Your task to perform on an android device: change notification settings in the gmail app Image 0: 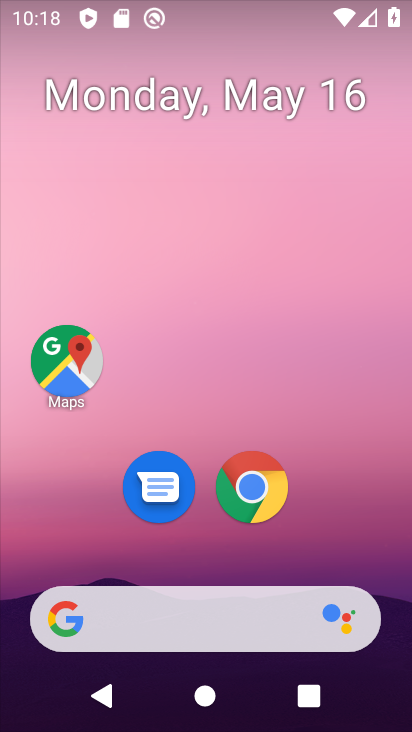
Step 0: drag from (13, 588) to (222, 170)
Your task to perform on an android device: change notification settings in the gmail app Image 1: 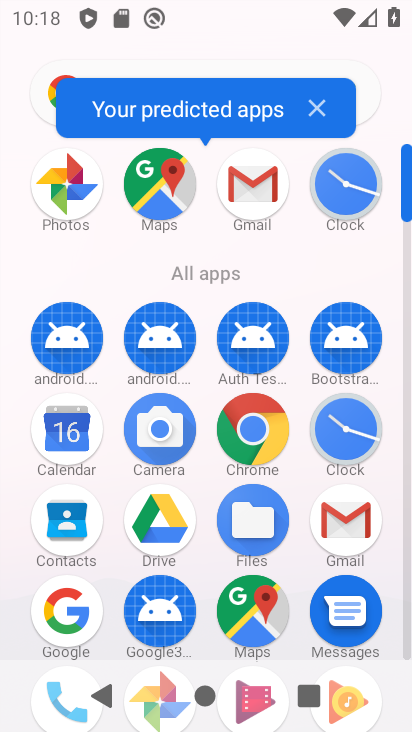
Step 1: click (248, 182)
Your task to perform on an android device: change notification settings in the gmail app Image 2: 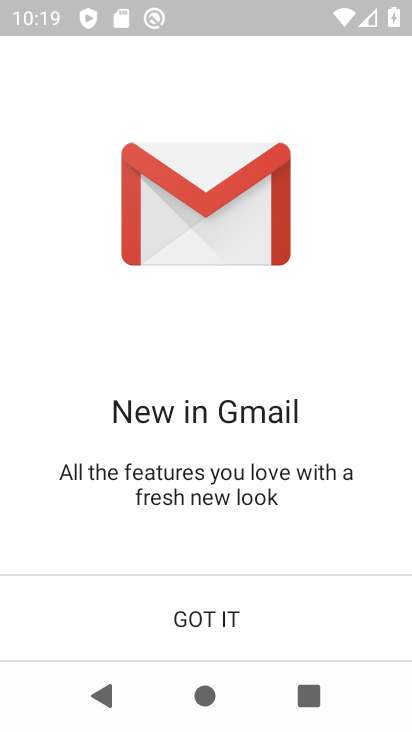
Step 2: click (223, 618)
Your task to perform on an android device: change notification settings in the gmail app Image 3: 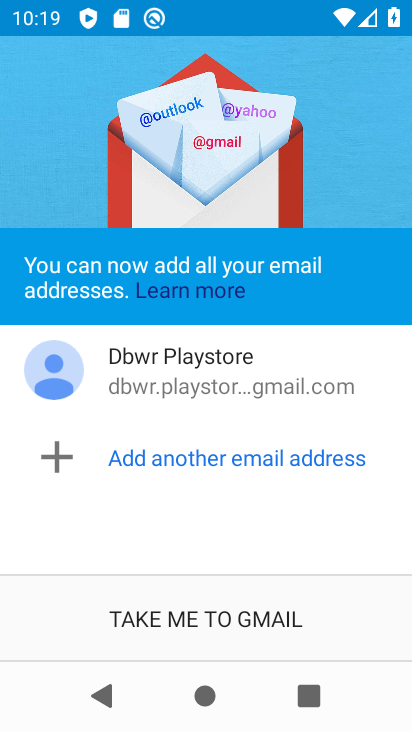
Step 3: click (118, 642)
Your task to perform on an android device: change notification settings in the gmail app Image 4: 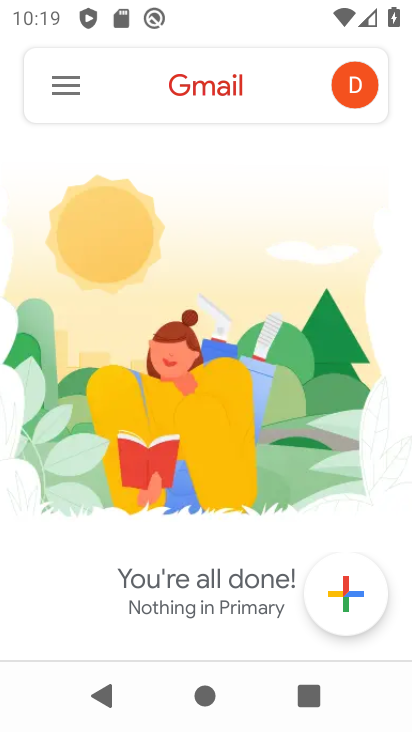
Step 4: click (68, 93)
Your task to perform on an android device: change notification settings in the gmail app Image 5: 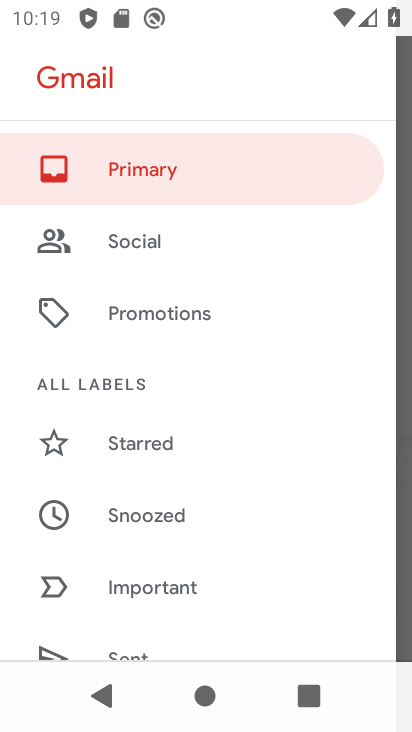
Step 5: drag from (128, 595) to (253, 62)
Your task to perform on an android device: change notification settings in the gmail app Image 6: 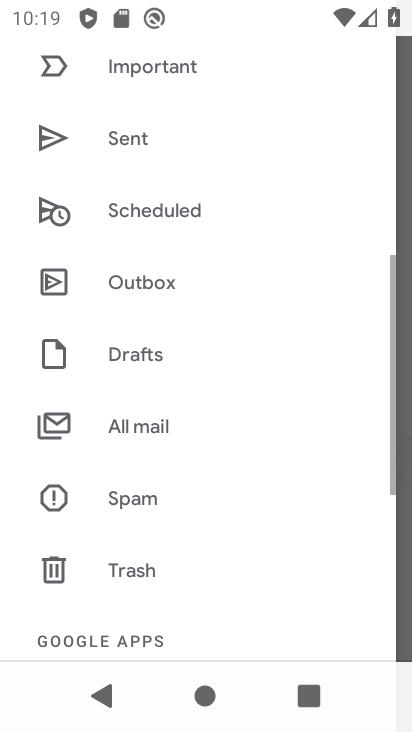
Step 6: drag from (81, 630) to (288, 174)
Your task to perform on an android device: change notification settings in the gmail app Image 7: 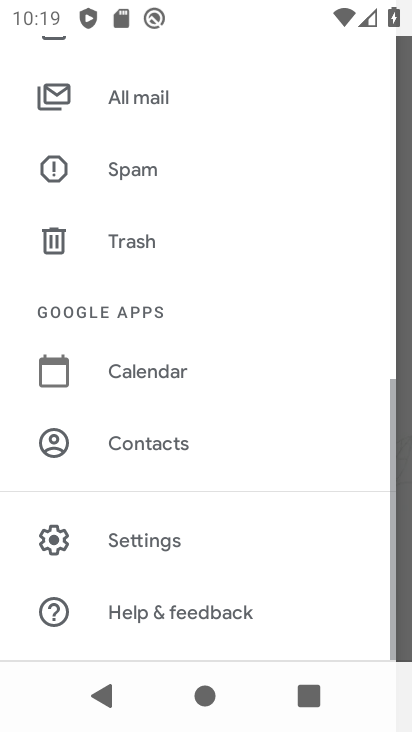
Step 7: click (155, 545)
Your task to perform on an android device: change notification settings in the gmail app Image 8: 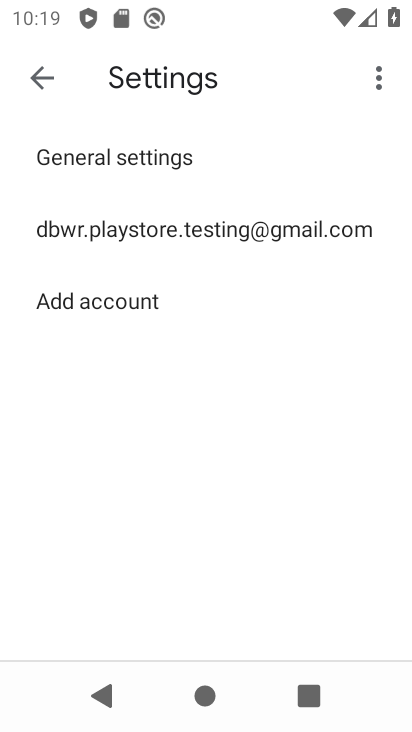
Step 8: click (171, 231)
Your task to perform on an android device: change notification settings in the gmail app Image 9: 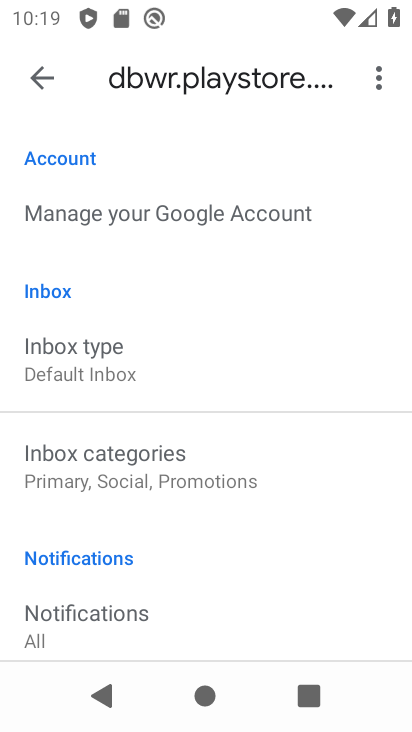
Step 9: drag from (100, 570) to (155, 155)
Your task to perform on an android device: change notification settings in the gmail app Image 10: 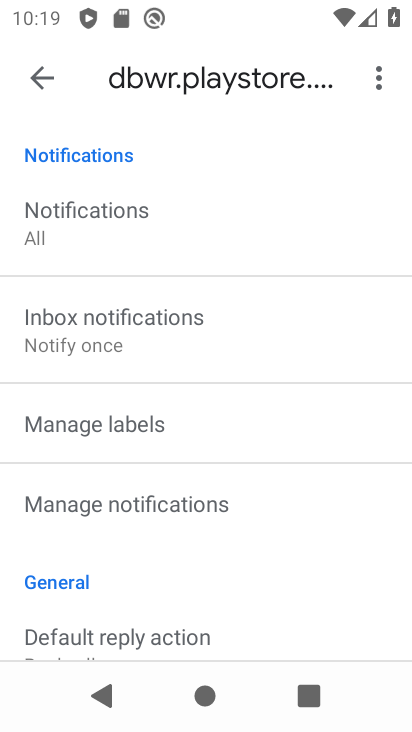
Step 10: click (110, 509)
Your task to perform on an android device: change notification settings in the gmail app Image 11: 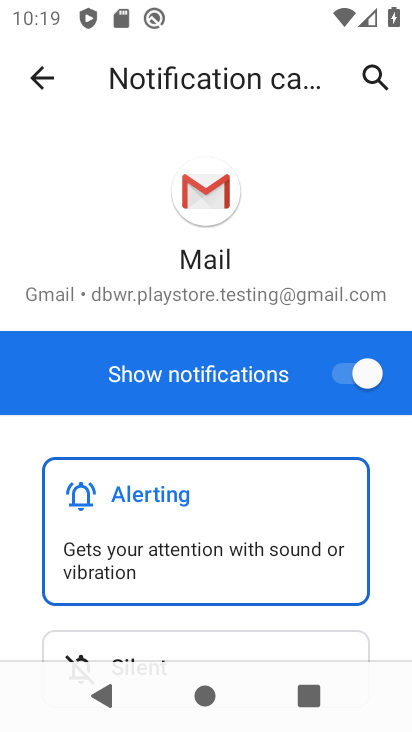
Step 11: click (370, 378)
Your task to perform on an android device: change notification settings in the gmail app Image 12: 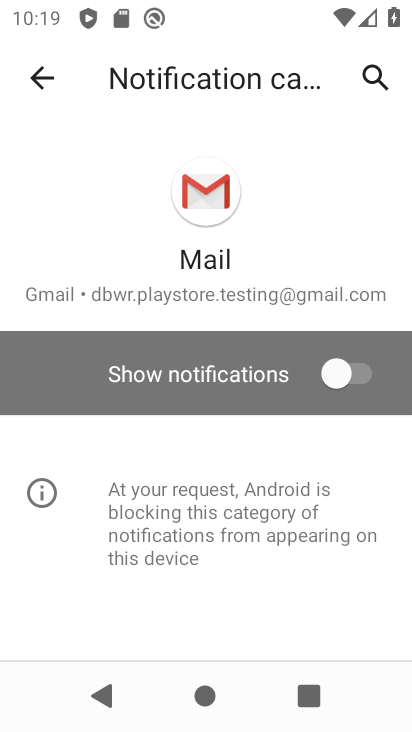
Step 12: task complete